Your task to perform on an android device: Go to sound settings Image 0: 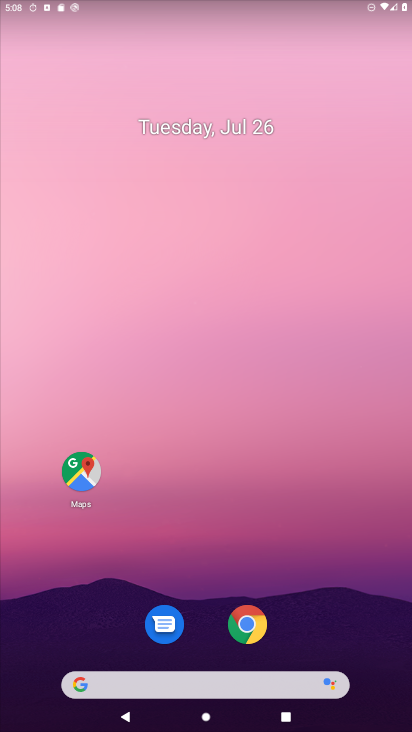
Step 0: drag from (291, 680) to (346, 2)
Your task to perform on an android device: Go to sound settings Image 1: 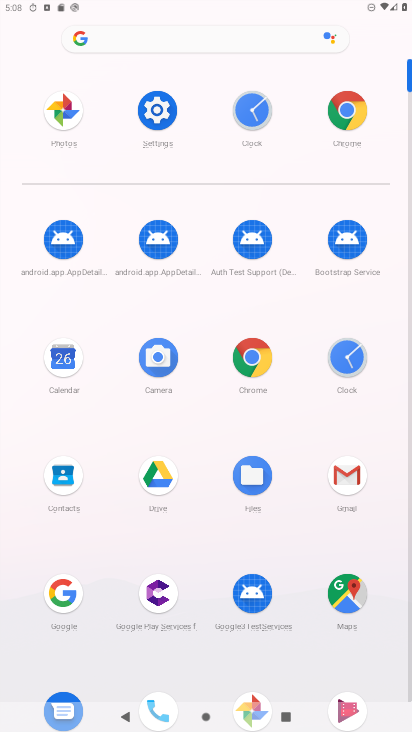
Step 1: click (151, 100)
Your task to perform on an android device: Go to sound settings Image 2: 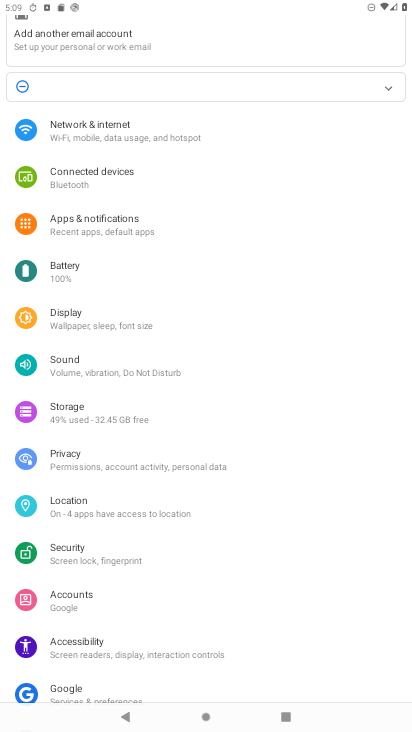
Step 2: click (87, 355)
Your task to perform on an android device: Go to sound settings Image 3: 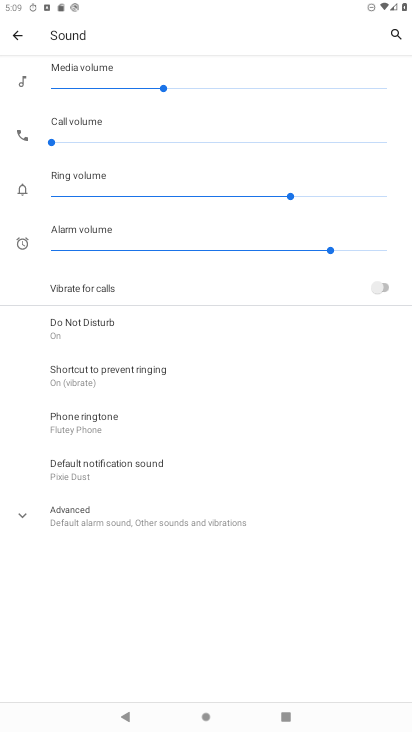
Step 3: task complete